Your task to perform on an android device: Search for hotels in Buenos aires Image 0: 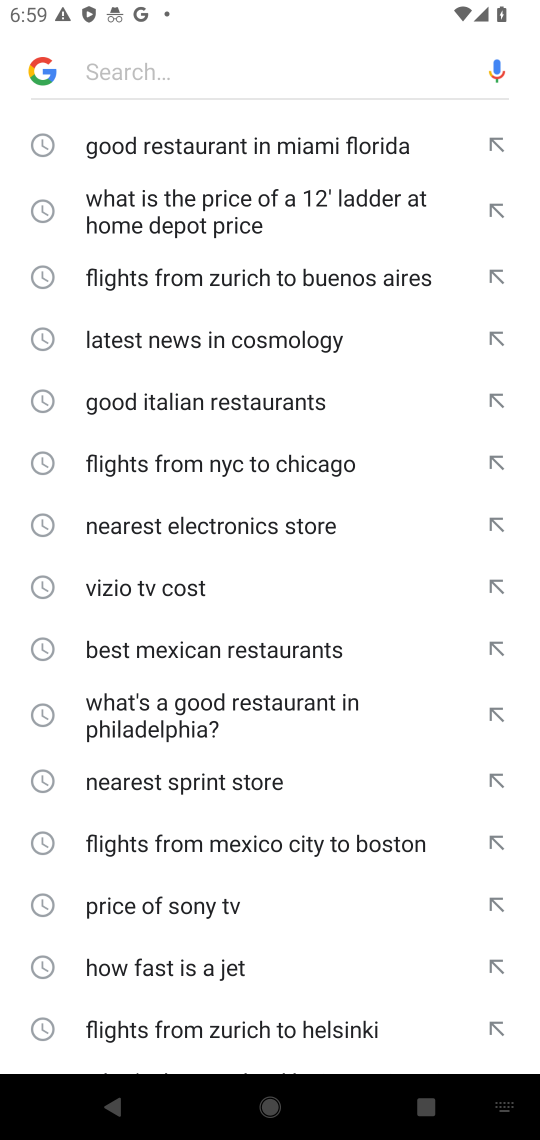
Step 0: press home button
Your task to perform on an android device: Search for hotels in Buenos aires Image 1: 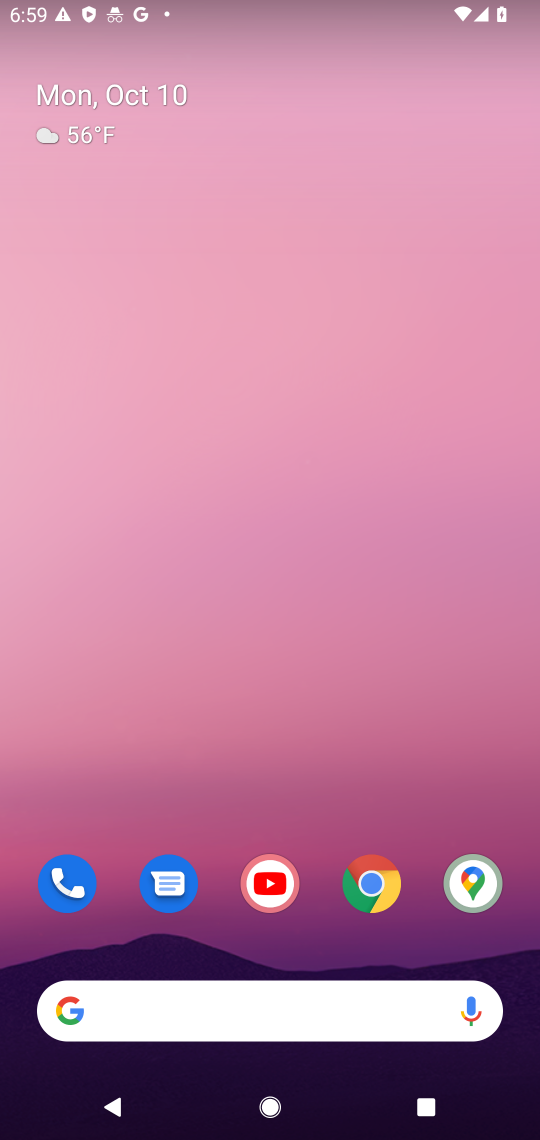
Step 1: drag from (328, 921) to (314, 532)
Your task to perform on an android device: Search for hotels in Buenos aires Image 2: 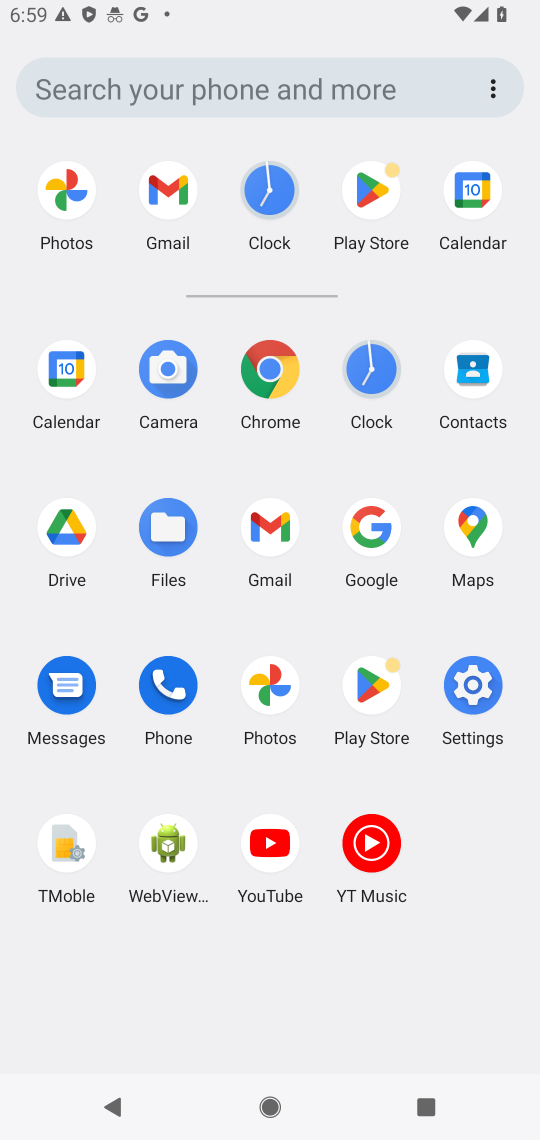
Step 2: click (371, 578)
Your task to perform on an android device: Search for hotels in Buenos aires Image 3: 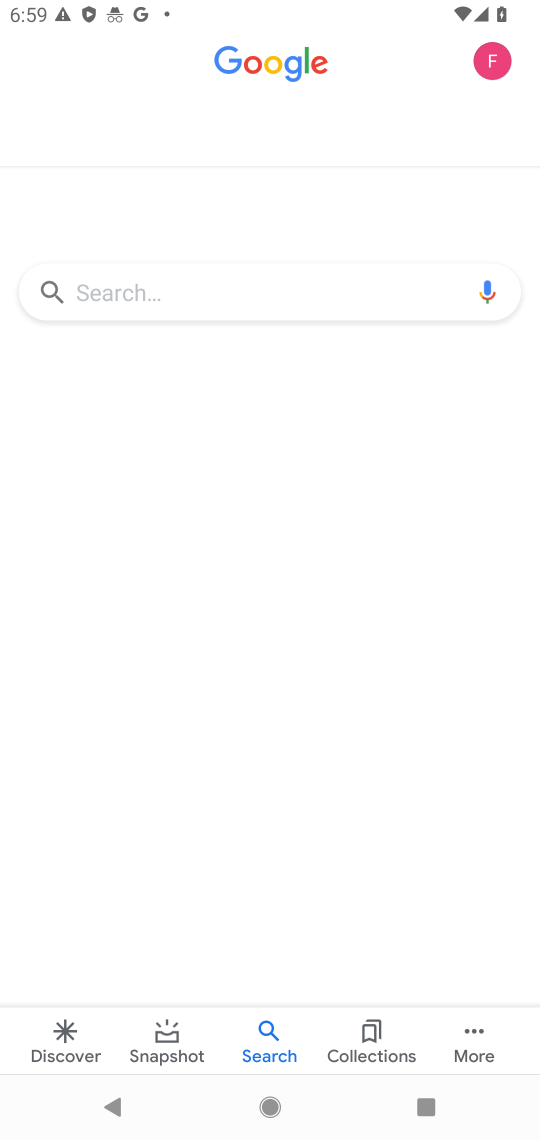
Step 3: click (338, 284)
Your task to perform on an android device: Search for hotels in Buenos aires Image 4: 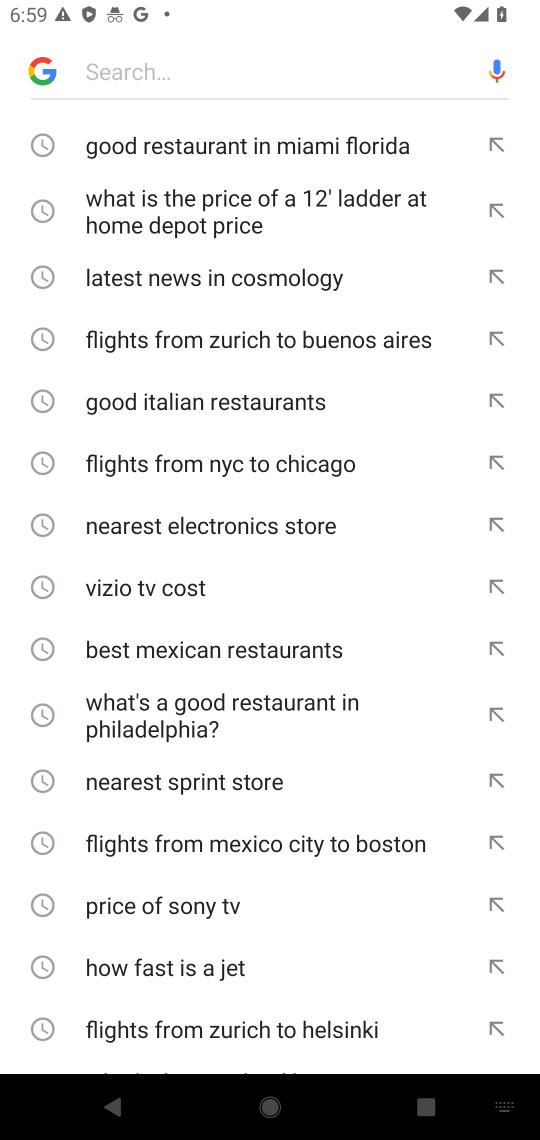
Step 4: type "hotels in Buenos aires"
Your task to perform on an android device: Search for hotels in Buenos aires Image 5: 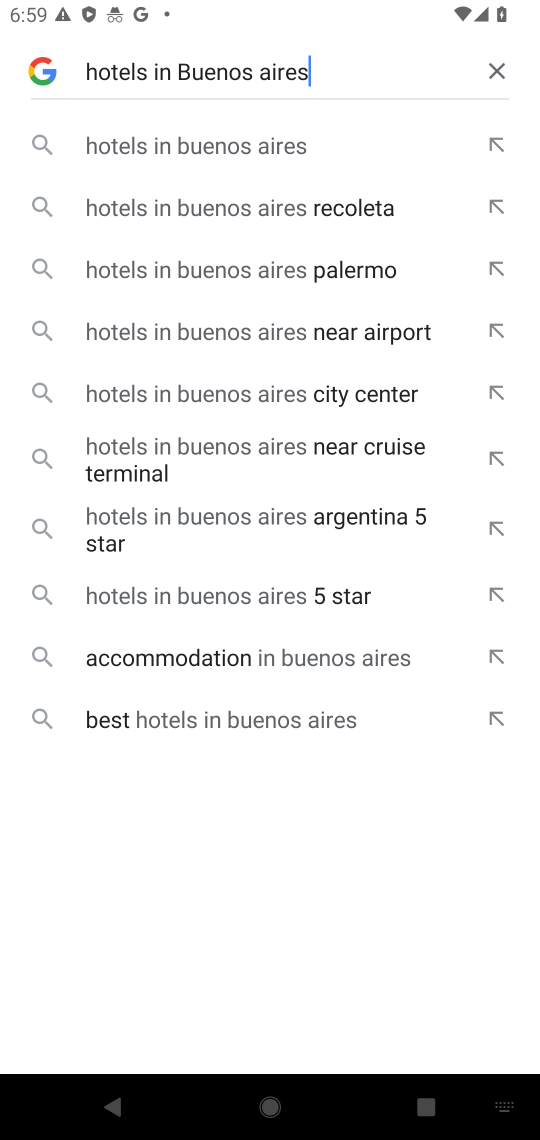
Step 5: click (266, 154)
Your task to perform on an android device: Search for hotels in Buenos aires Image 6: 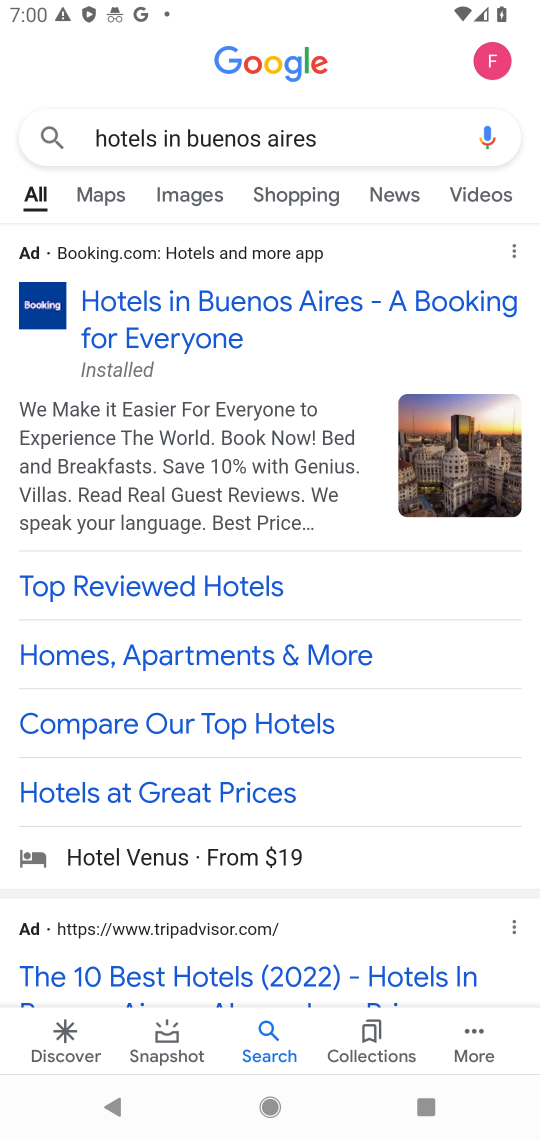
Step 6: task complete